Your task to perform on an android device: Open settings Image 0: 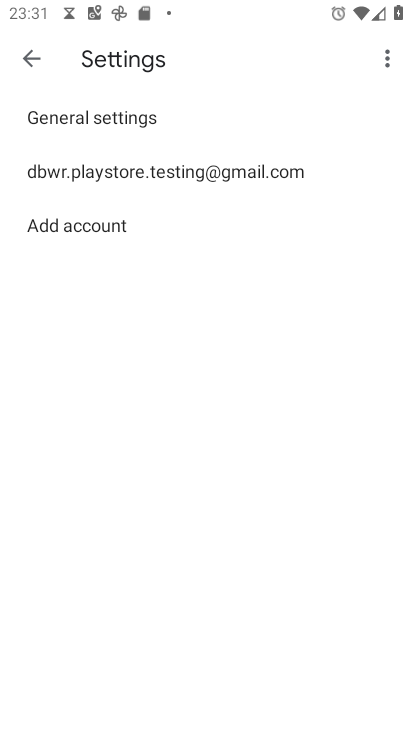
Step 0: press home button
Your task to perform on an android device: Open settings Image 1: 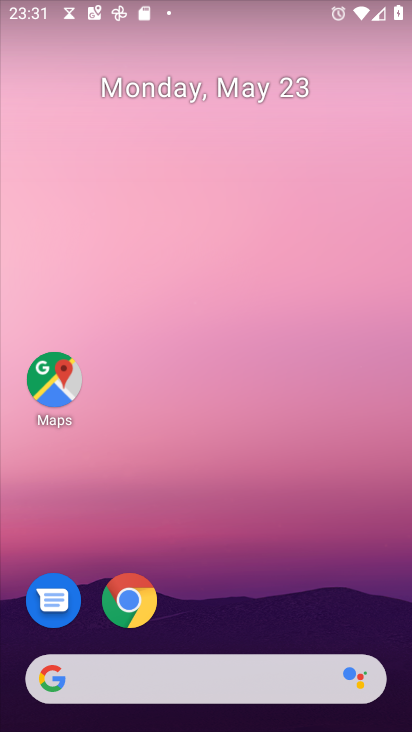
Step 1: drag from (208, 722) to (181, 152)
Your task to perform on an android device: Open settings Image 2: 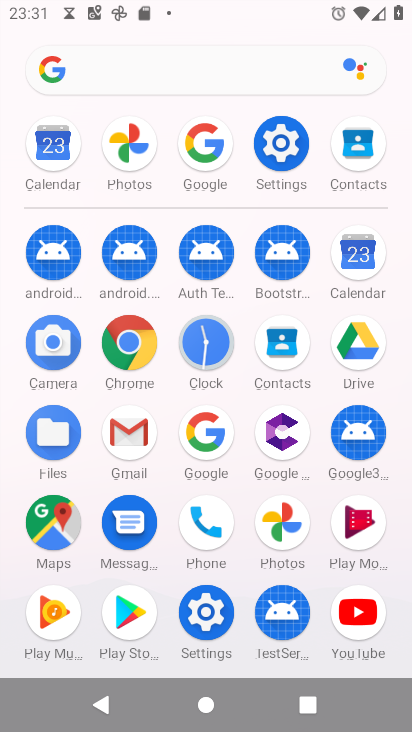
Step 2: click (271, 145)
Your task to perform on an android device: Open settings Image 3: 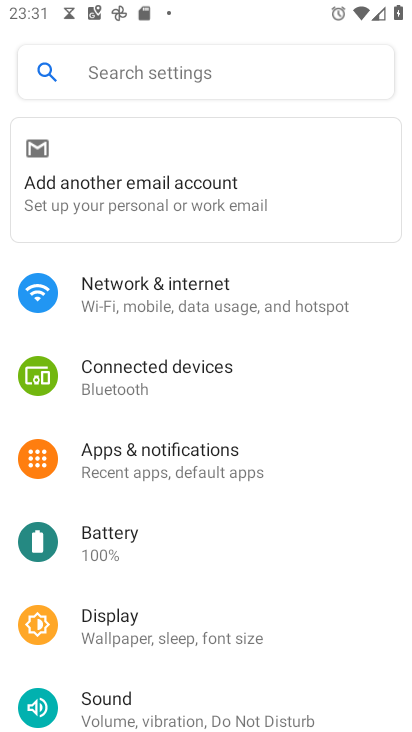
Step 3: task complete